Your task to perform on an android device: change your default location settings in chrome Image 0: 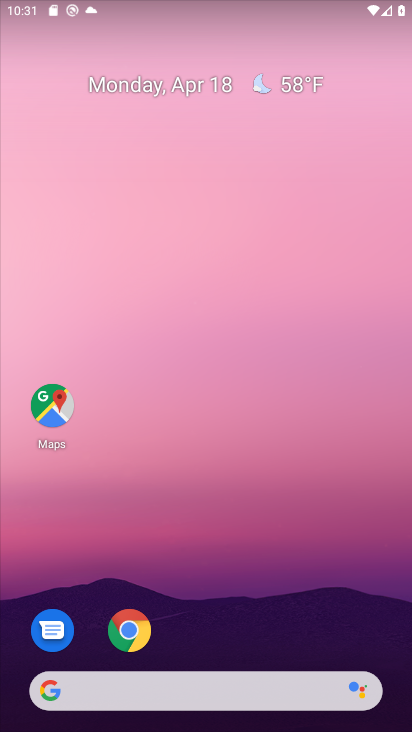
Step 0: drag from (208, 662) to (178, 28)
Your task to perform on an android device: change your default location settings in chrome Image 1: 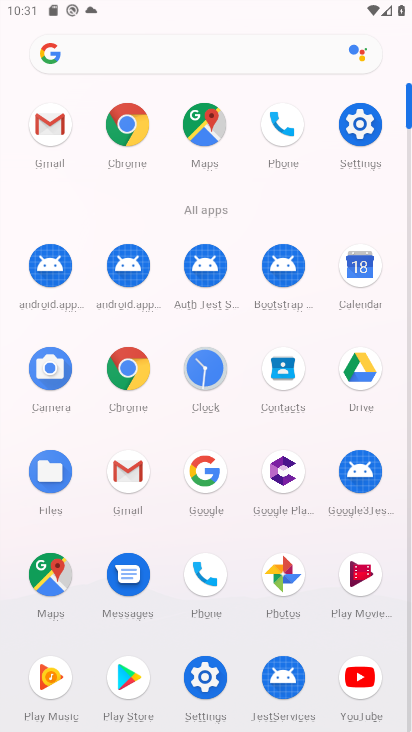
Step 1: click (131, 126)
Your task to perform on an android device: change your default location settings in chrome Image 2: 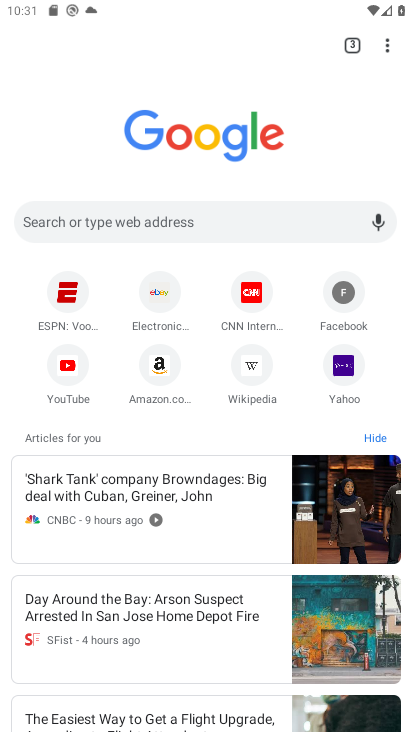
Step 2: click (385, 45)
Your task to perform on an android device: change your default location settings in chrome Image 3: 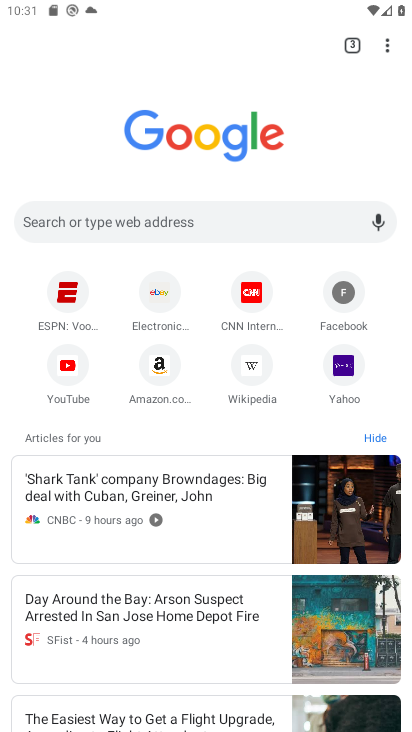
Step 3: click (382, 46)
Your task to perform on an android device: change your default location settings in chrome Image 4: 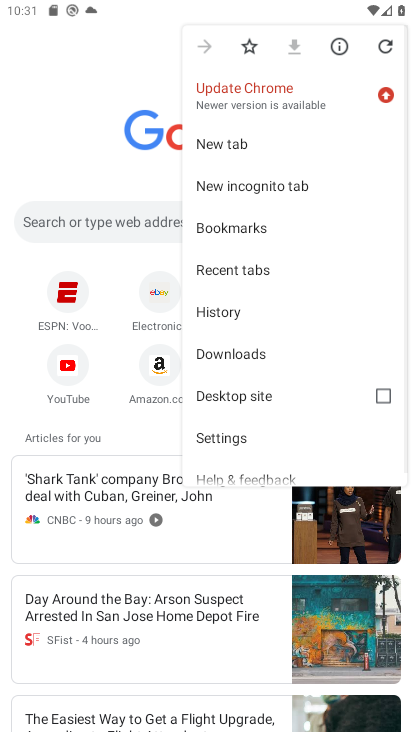
Step 4: click (257, 438)
Your task to perform on an android device: change your default location settings in chrome Image 5: 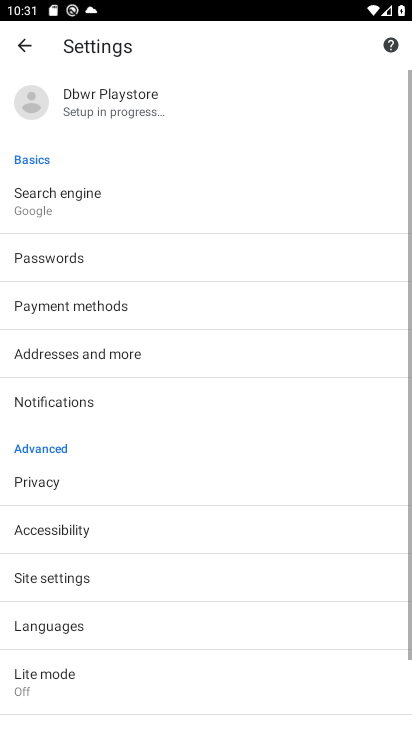
Step 5: drag from (204, 599) to (159, 232)
Your task to perform on an android device: change your default location settings in chrome Image 6: 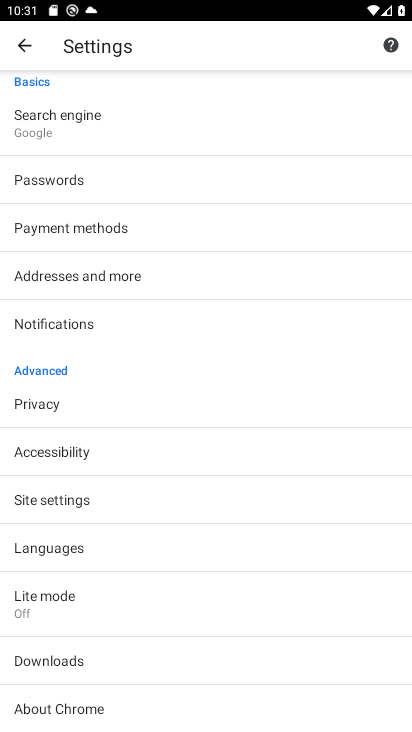
Step 6: click (49, 499)
Your task to perform on an android device: change your default location settings in chrome Image 7: 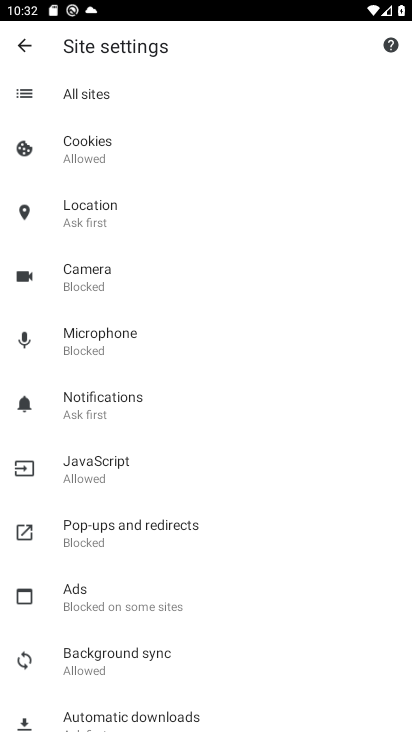
Step 7: click (109, 194)
Your task to perform on an android device: change your default location settings in chrome Image 8: 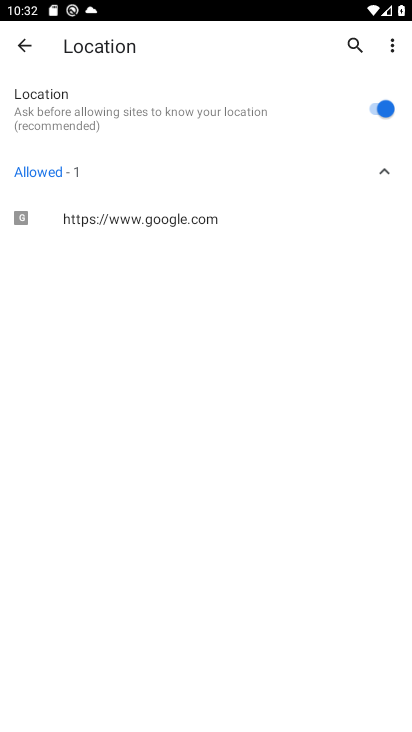
Step 8: click (384, 114)
Your task to perform on an android device: change your default location settings in chrome Image 9: 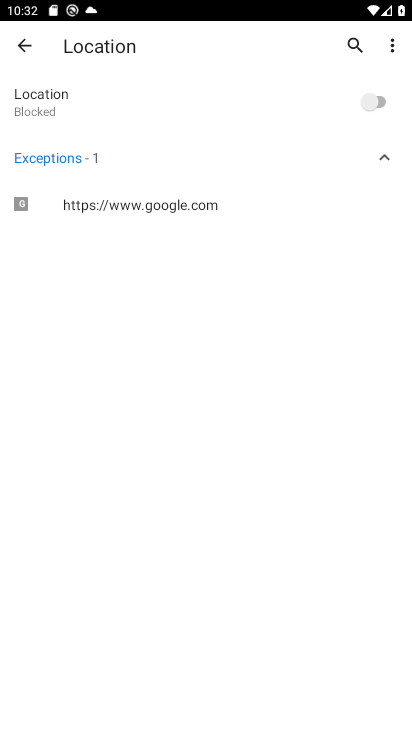
Step 9: task complete